Your task to perform on an android device: see creations saved in the google photos Image 0: 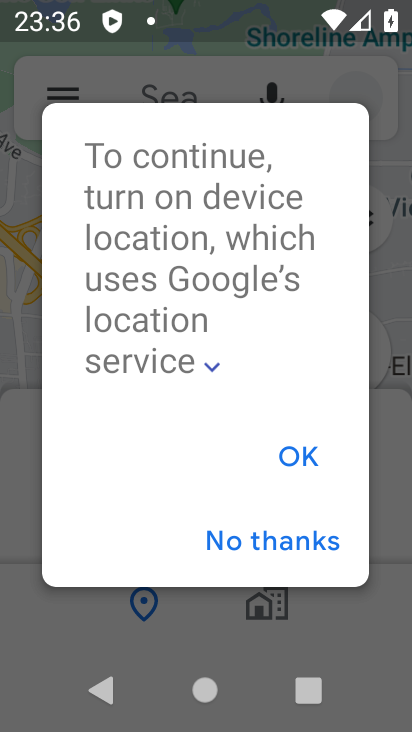
Step 0: press back button
Your task to perform on an android device: see creations saved in the google photos Image 1: 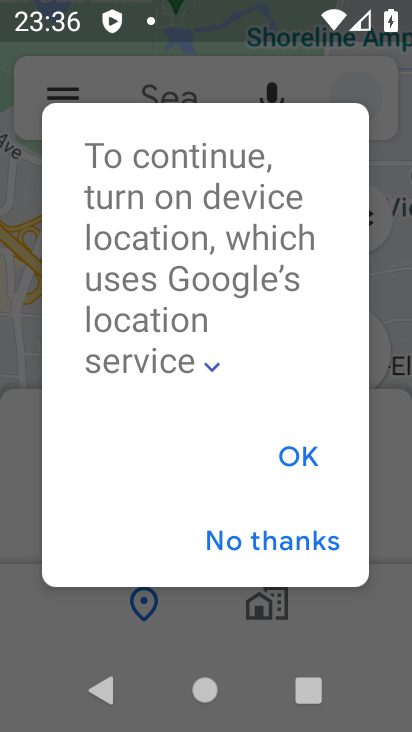
Step 1: press home button
Your task to perform on an android device: see creations saved in the google photos Image 2: 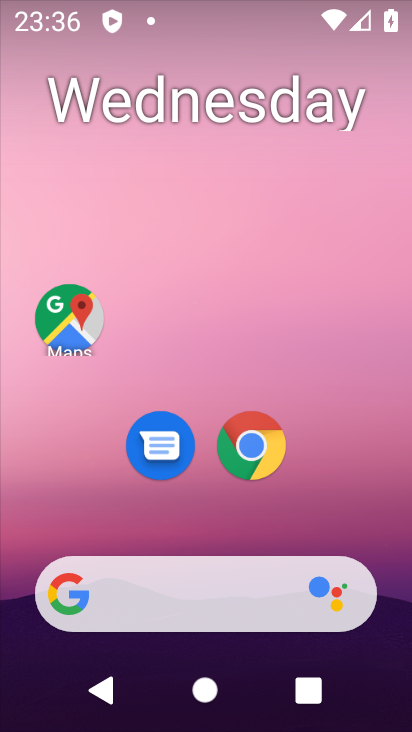
Step 2: drag from (194, 474) to (278, 113)
Your task to perform on an android device: see creations saved in the google photos Image 3: 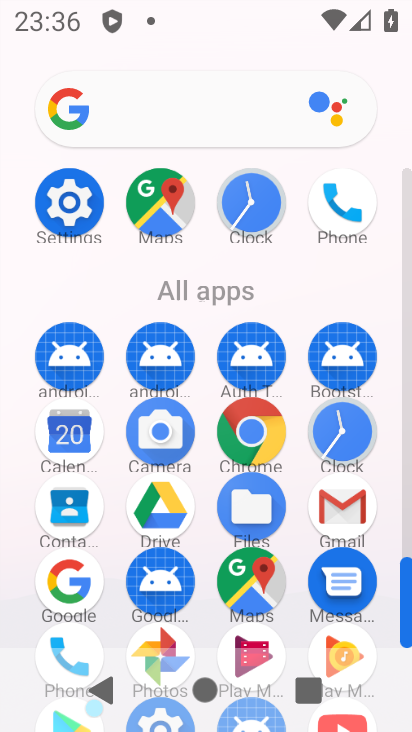
Step 3: drag from (230, 495) to (315, 128)
Your task to perform on an android device: see creations saved in the google photos Image 4: 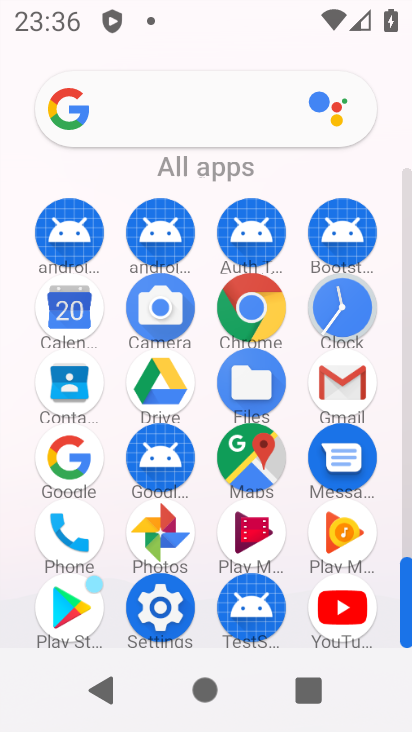
Step 4: click (152, 528)
Your task to perform on an android device: see creations saved in the google photos Image 5: 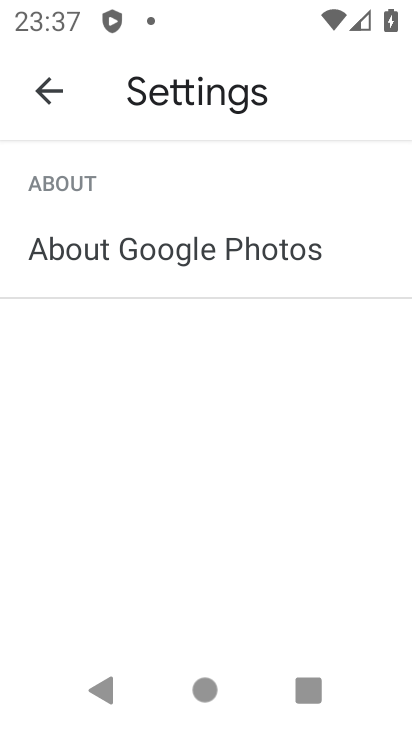
Step 5: click (48, 84)
Your task to perform on an android device: see creations saved in the google photos Image 6: 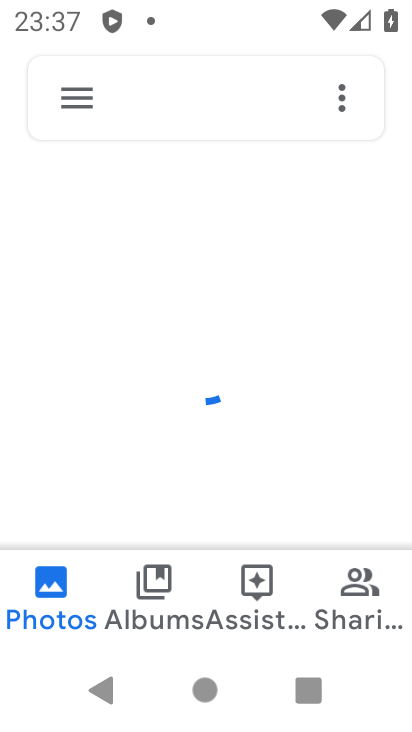
Step 6: click (61, 95)
Your task to perform on an android device: see creations saved in the google photos Image 7: 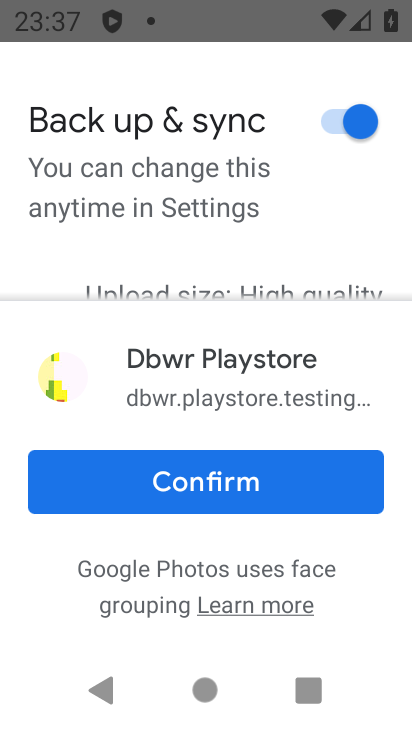
Step 7: click (207, 495)
Your task to perform on an android device: see creations saved in the google photos Image 8: 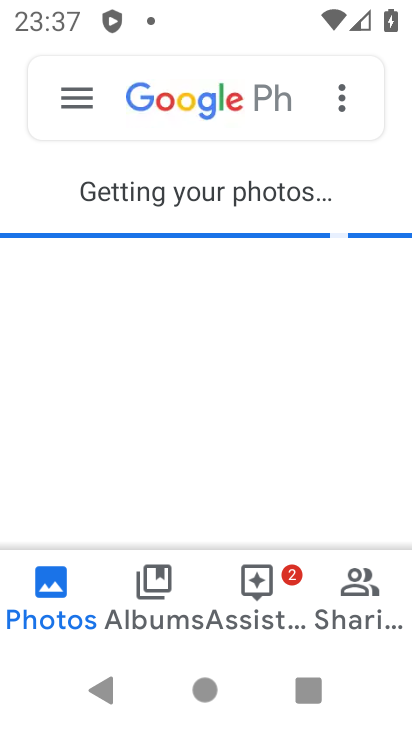
Step 8: click (69, 93)
Your task to perform on an android device: see creations saved in the google photos Image 9: 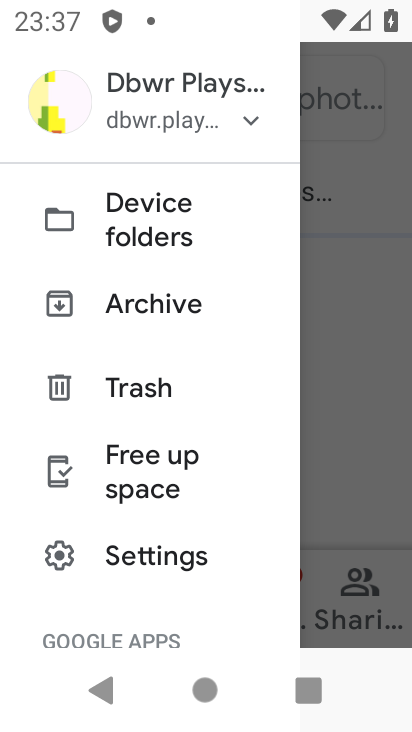
Step 9: click (182, 288)
Your task to perform on an android device: see creations saved in the google photos Image 10: 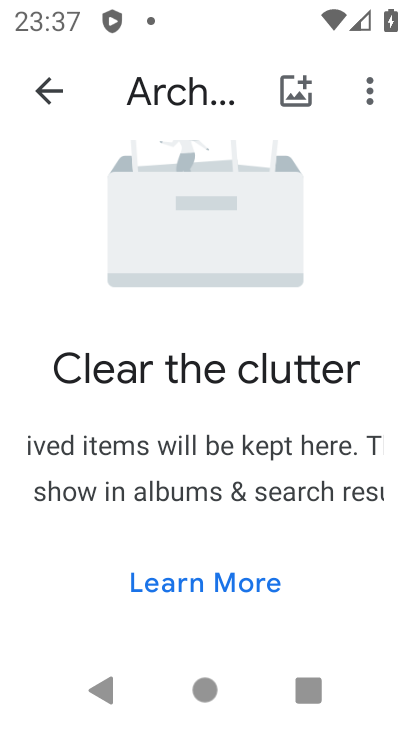
Step 10: task complete